Your task to perform on an android device: Search for sushi restaurants on Maps Image 0: 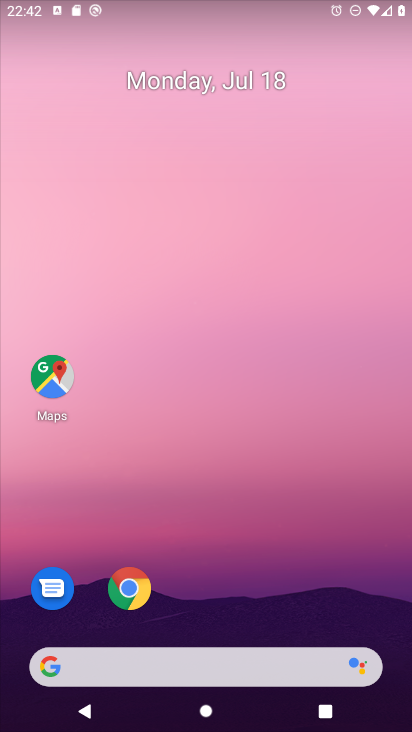
Step 0: click (48, 372)
Your task to perform on an android device: Search for sushi restaurants on Maps Image 1: 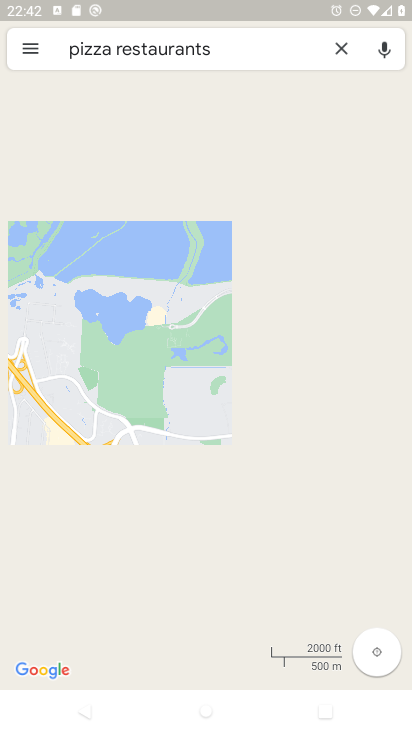
Step 1: click (344, 50)
Your task to perform on an android device: Search for sushi restaurants on Maps Image 2: 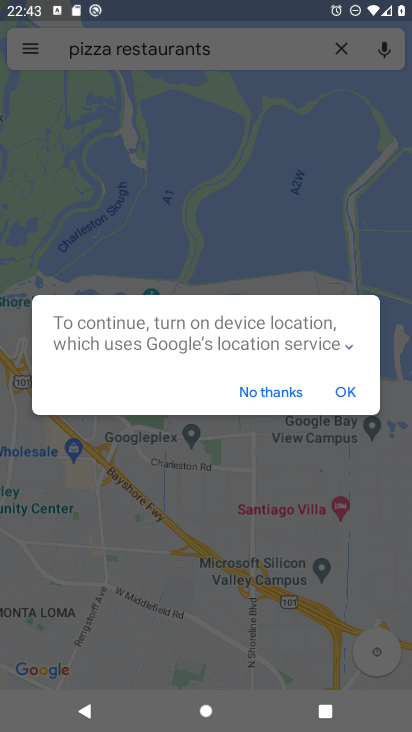
Step 2: click (341, 389)
Your task to perform on an android device: Search for sushi restaurants on Maps Image 3: 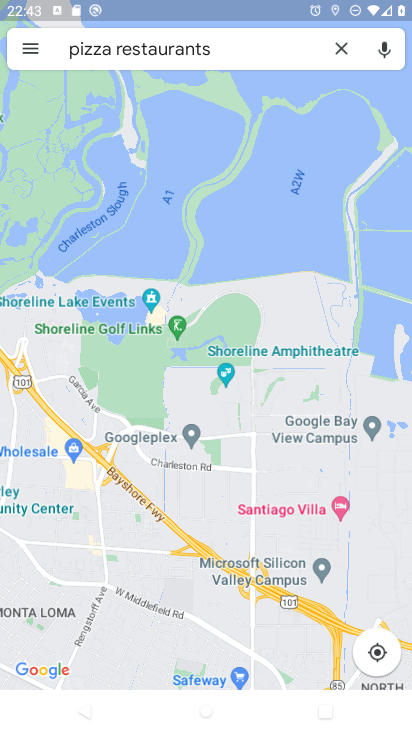
Step 3: click (336, 44)
Your task to perform on an android device: Search for sushi restaurants on Maps Image 4: 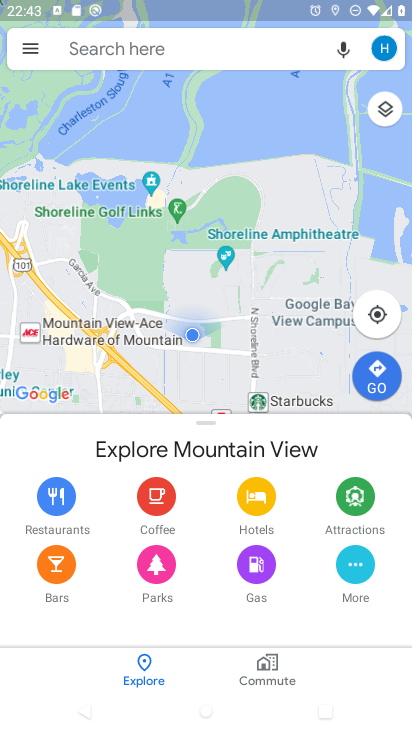
Step 4: click (171, 55)
Your task to perform on an android device: Search for sushi restaurants on Maps Image 5: 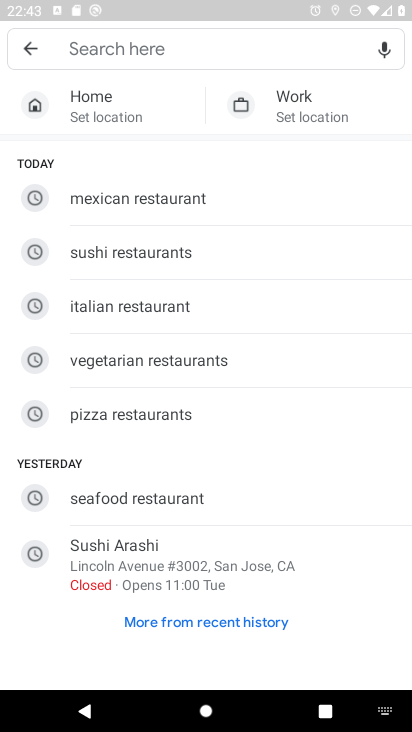
Step 5: type "sushi restaurants"
Your task to perform on an android device: Search for sushi restaurants on Maps Image 6: 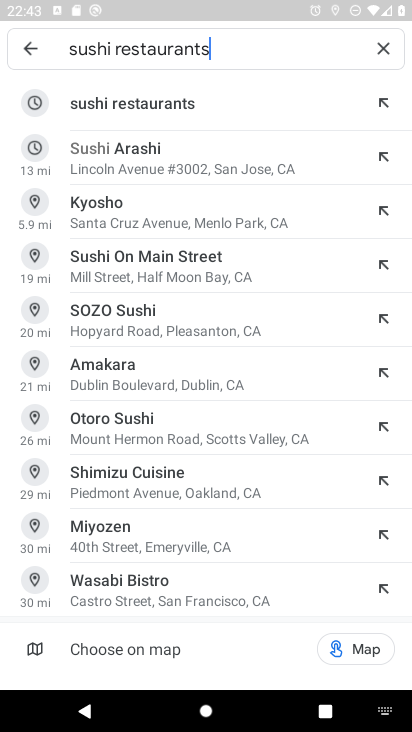
Step 6: click (119, 108)
Your task to perform on an android device: Search for sushi restaurants on Maps Image 7: 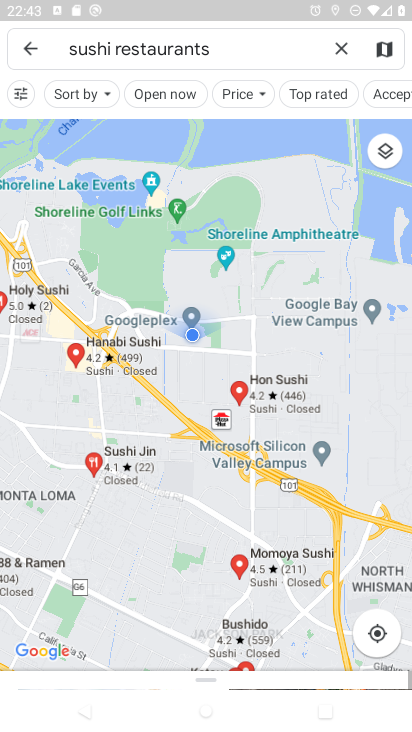
Step 7: task complete